Your task to perform on an android device: allow cookies in the chrome app Image 0: 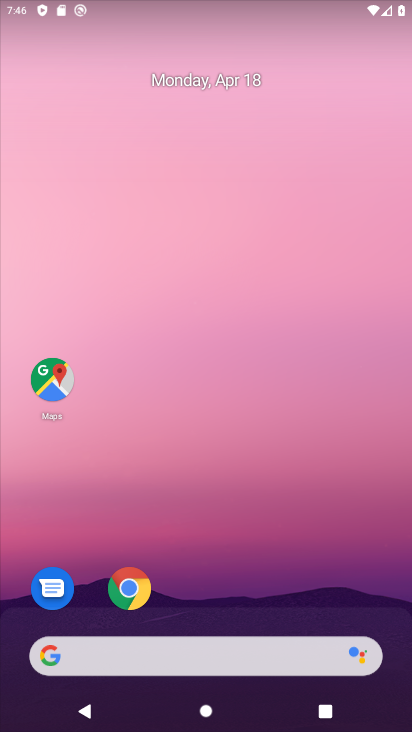
Step 0: click (120, 583)
Your task to perform on an android device: allow cookies in the chrome app Image 1: 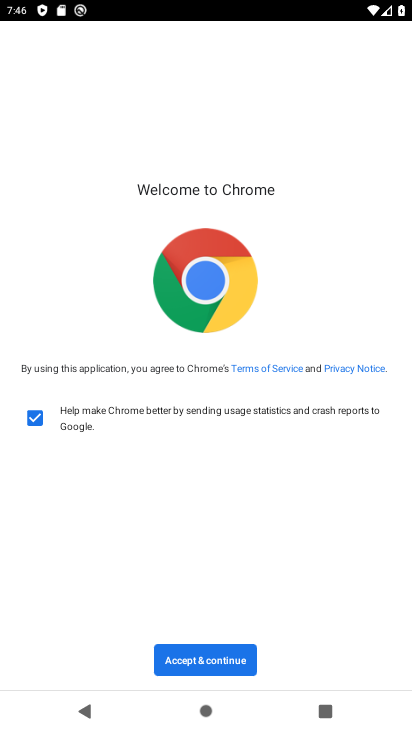
Step 1: click (226, 662)
Your task to perform on an android device: allow cookies in the chrome app Image 2: 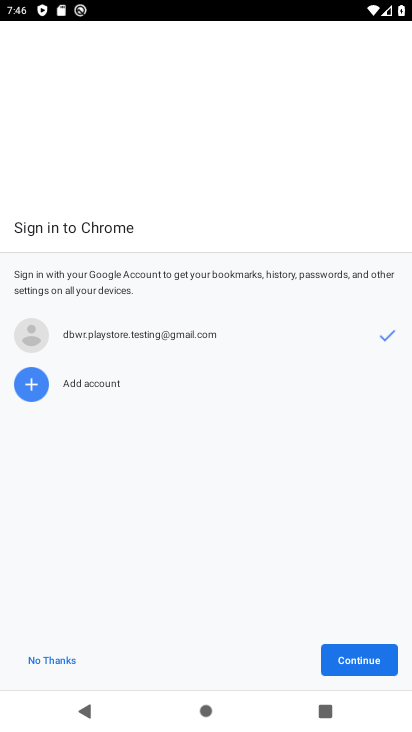
Step 2: click (374, 667)
Your task to perform on an android device: allow cookies in the chrome app Image 3: 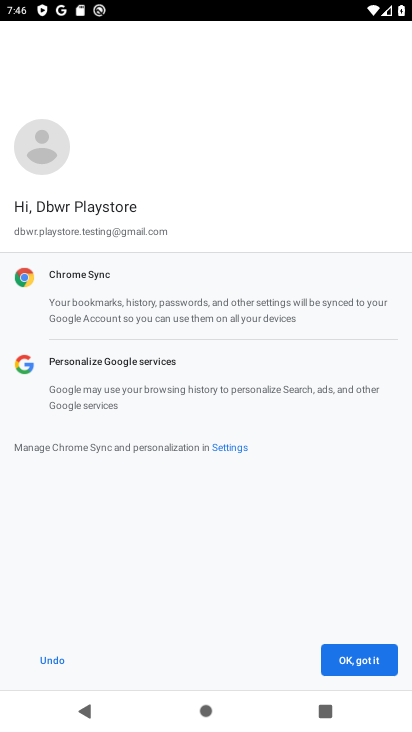
Step 3: click (384, 661)
Your task to perform on an android device: allow cookies in the chrome app Image 4: 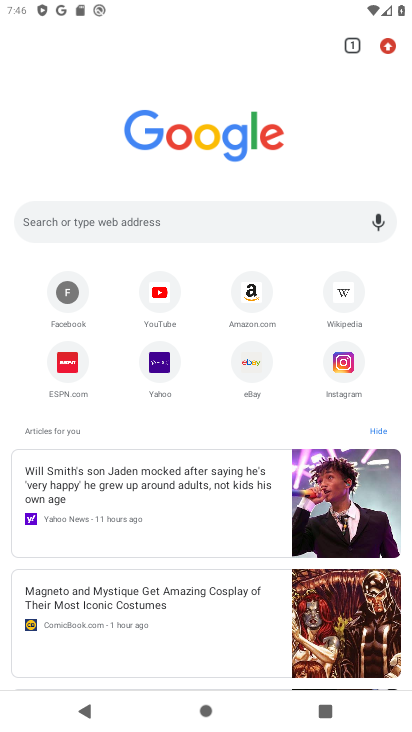
Step 4: click (389, 46)
Your task to perform on an android device: allow cookies in the chrome app Image 5: 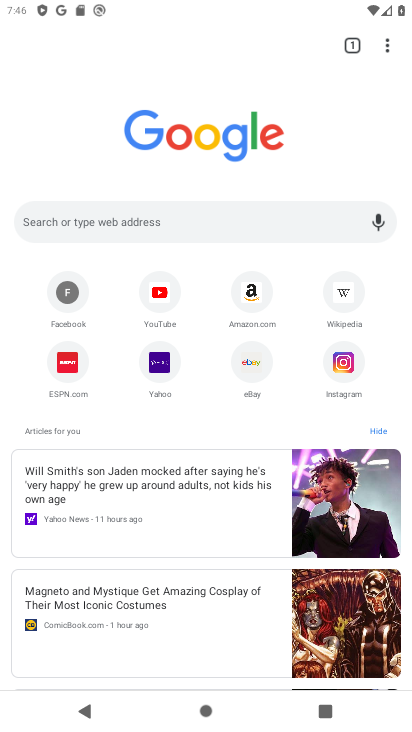
Step 5: click (389, 46)
Your task to perform on an android device: allow cookies in the chrome app Image 6: 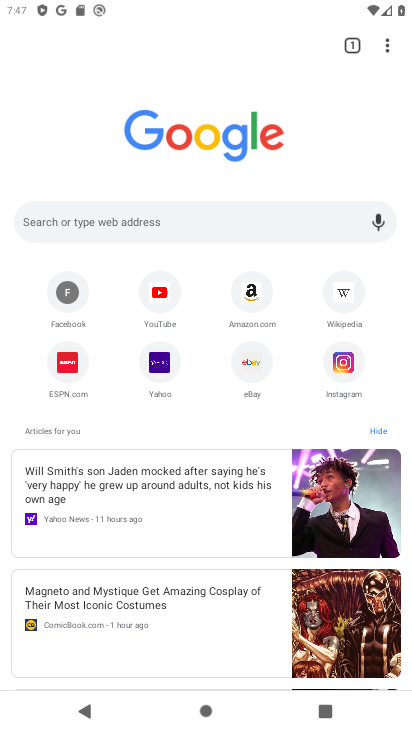
Step 6: drag from (389, 46) to (314, 418)
Your task to perform on an android device: allow cookies in the chrome app Image 7: 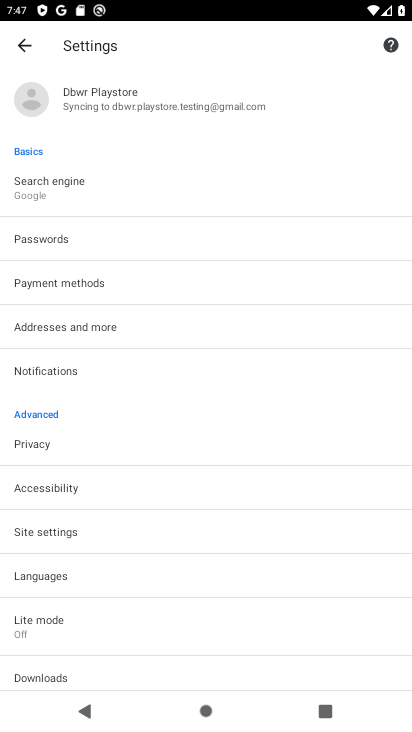
Step 7: click (92, 532)
Your task to perform on an android device: allow cookies in the chrome app Image 8: 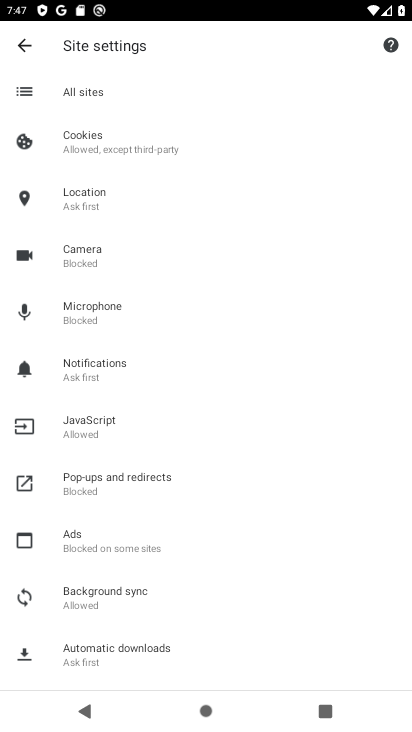
Step 8: click (149, 150)
Your task to perform on an android device: allow cookies in the chrome app Image 9: 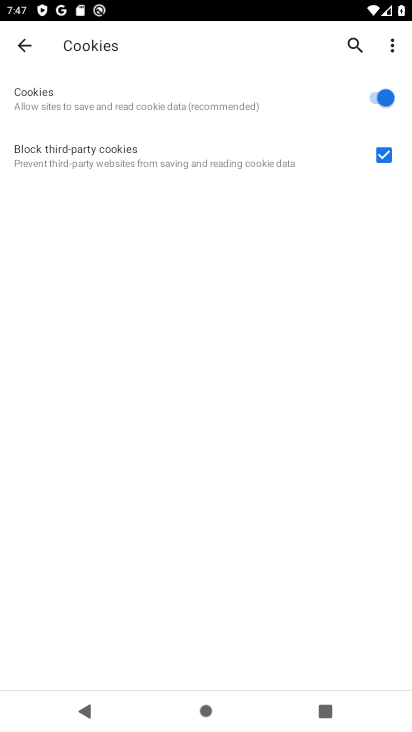
Step 9: task complete